Your task to perform on an android device: Open wifi settings Image 0: 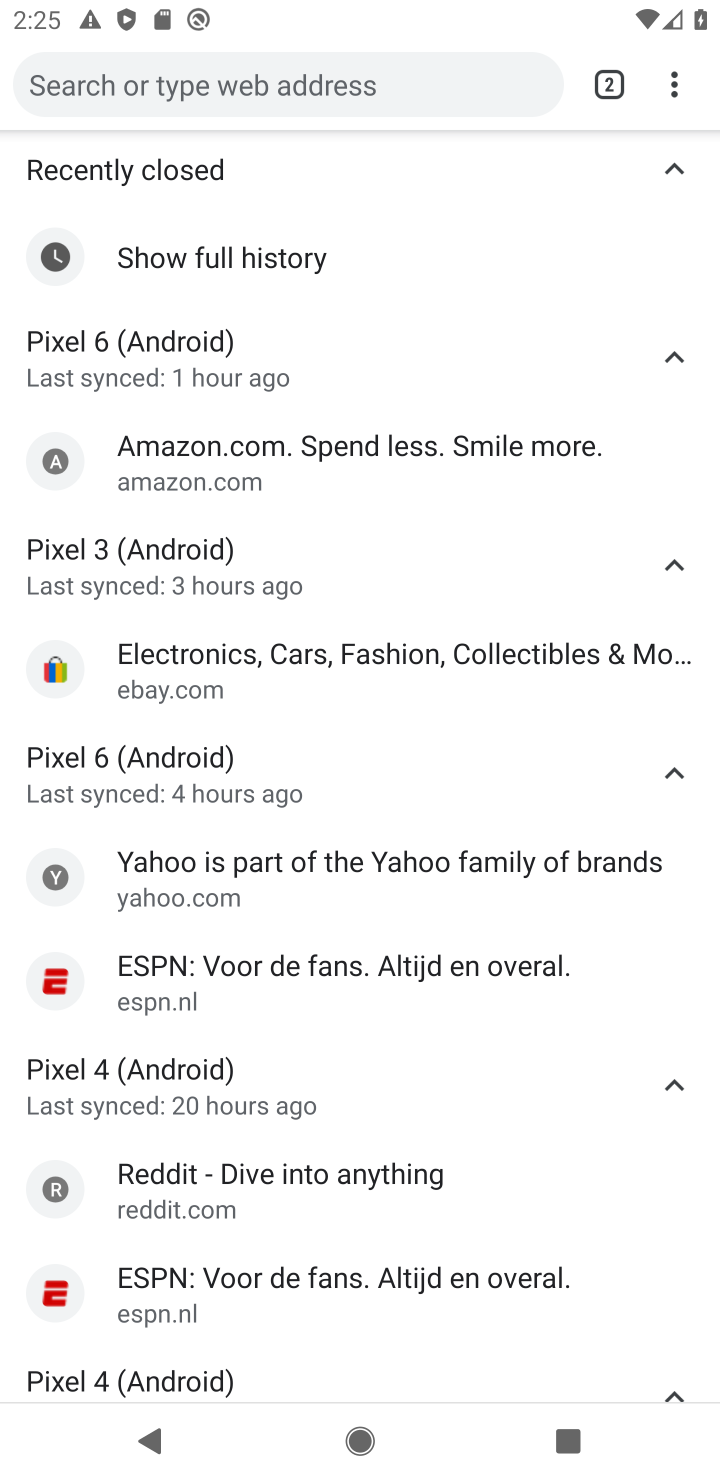
Step 0: press home button
Your task to perform on an android device: Open wifi settings Image 1: 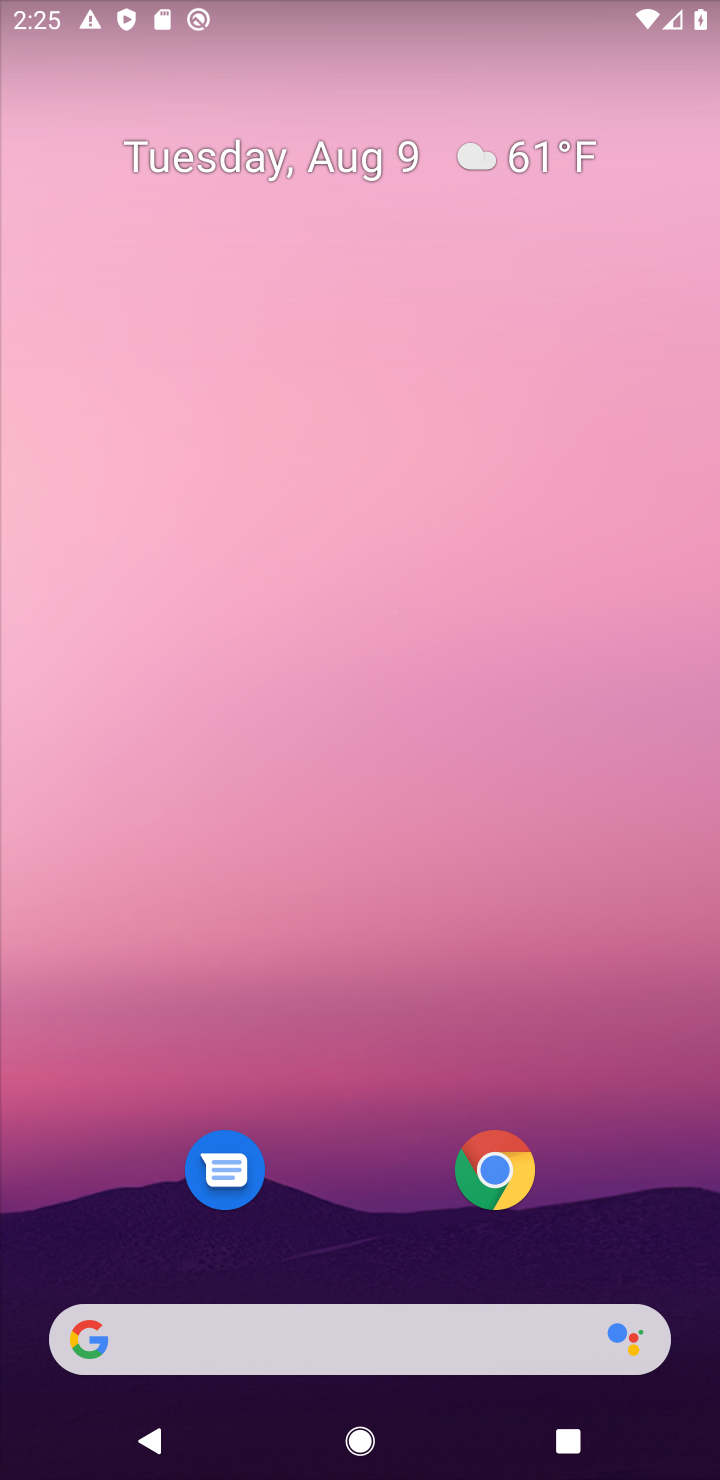
Step 1: drag from (352, 631) to (177, 1)
Your task to perform on an android device: Open wifi settings Image 2: 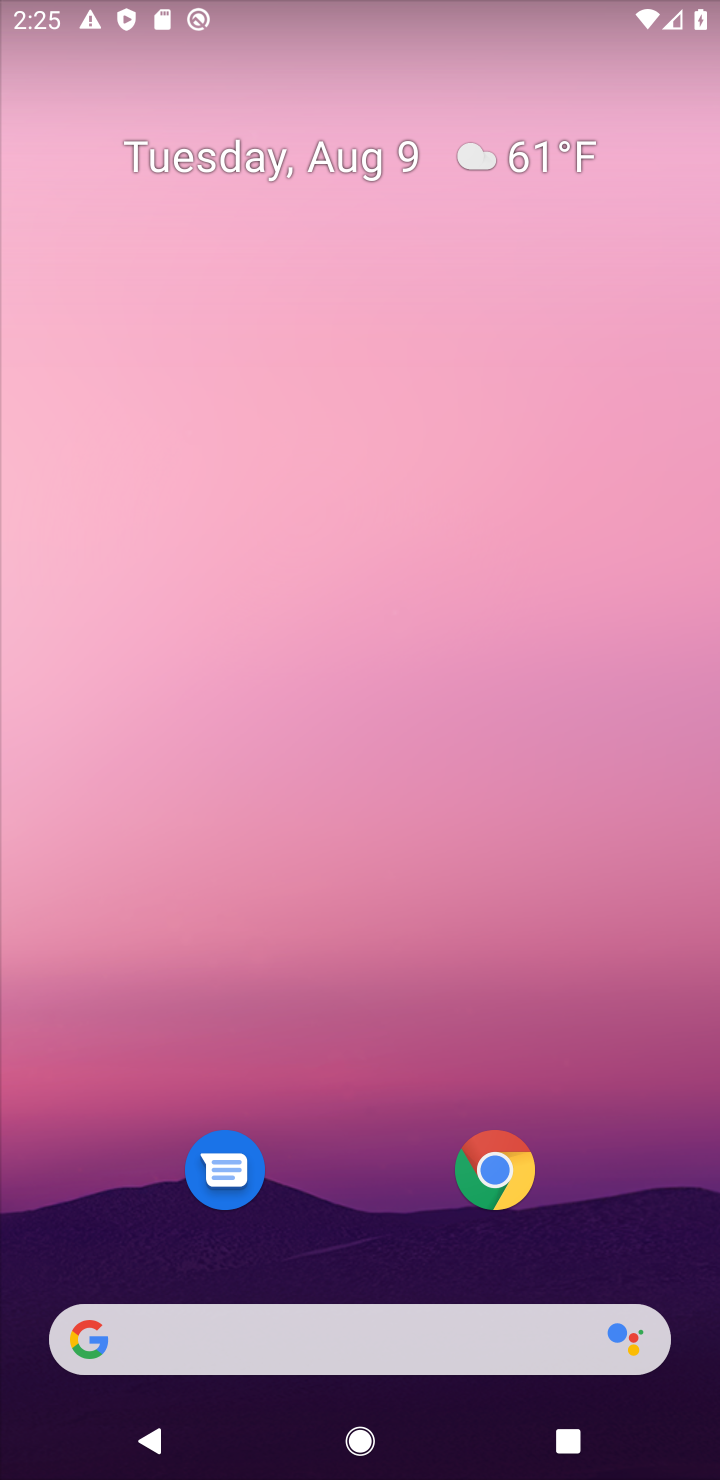
Step 2: drag from (294, 1155) to (451, 17)
Your task to perform on an android device: Open wifi settings Image 3: 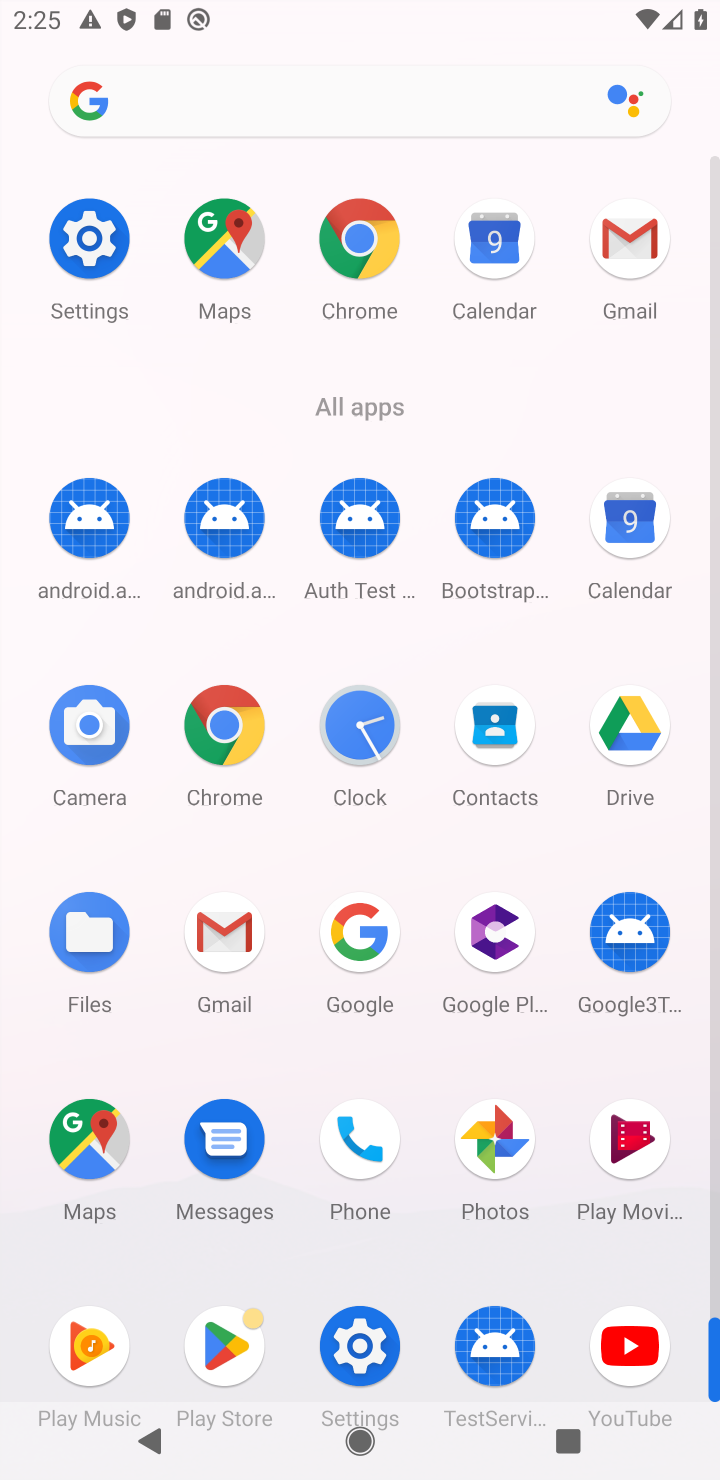
Step 3: click (71, 258)
Your task to perform on an android device: Open wifi settings Image 4: 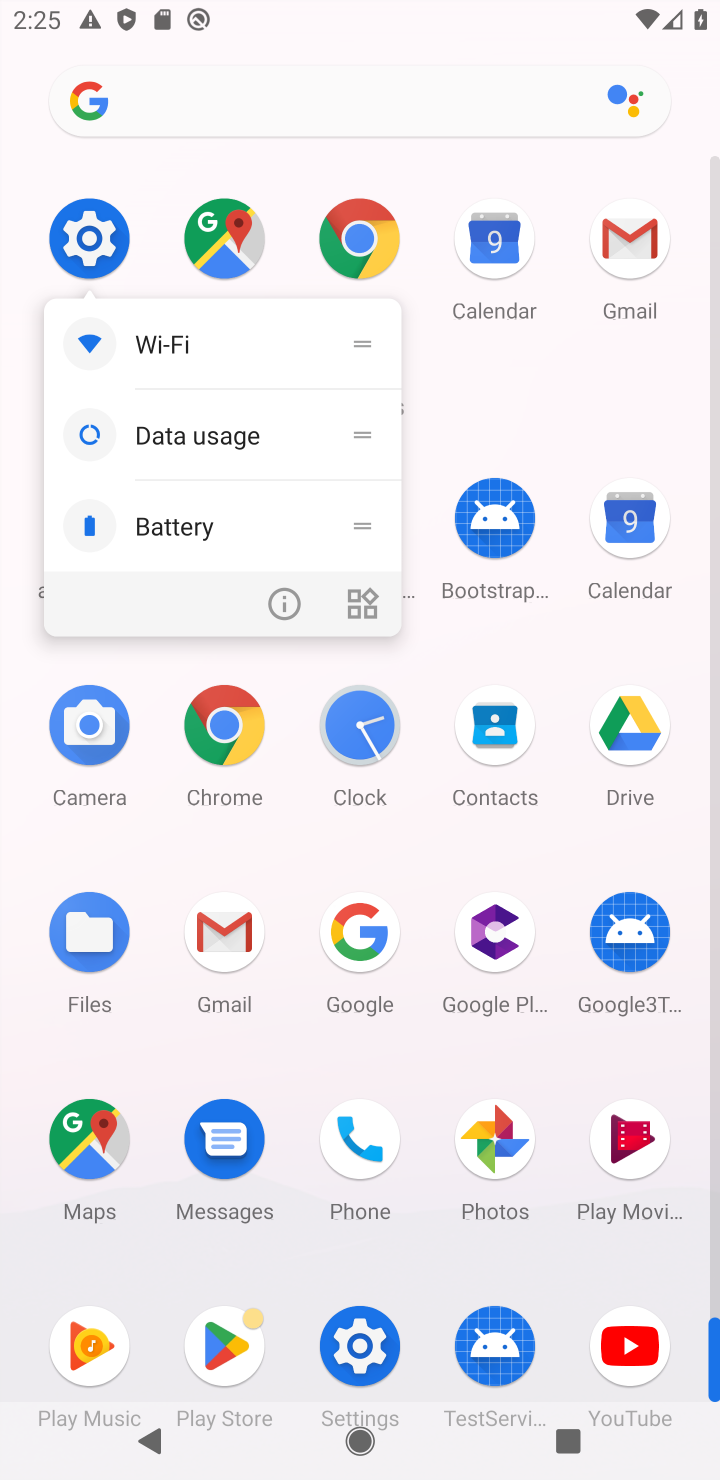
Step 4: click (74, 260)
Your task to perform on an android device: Open wifi settings Image 5: 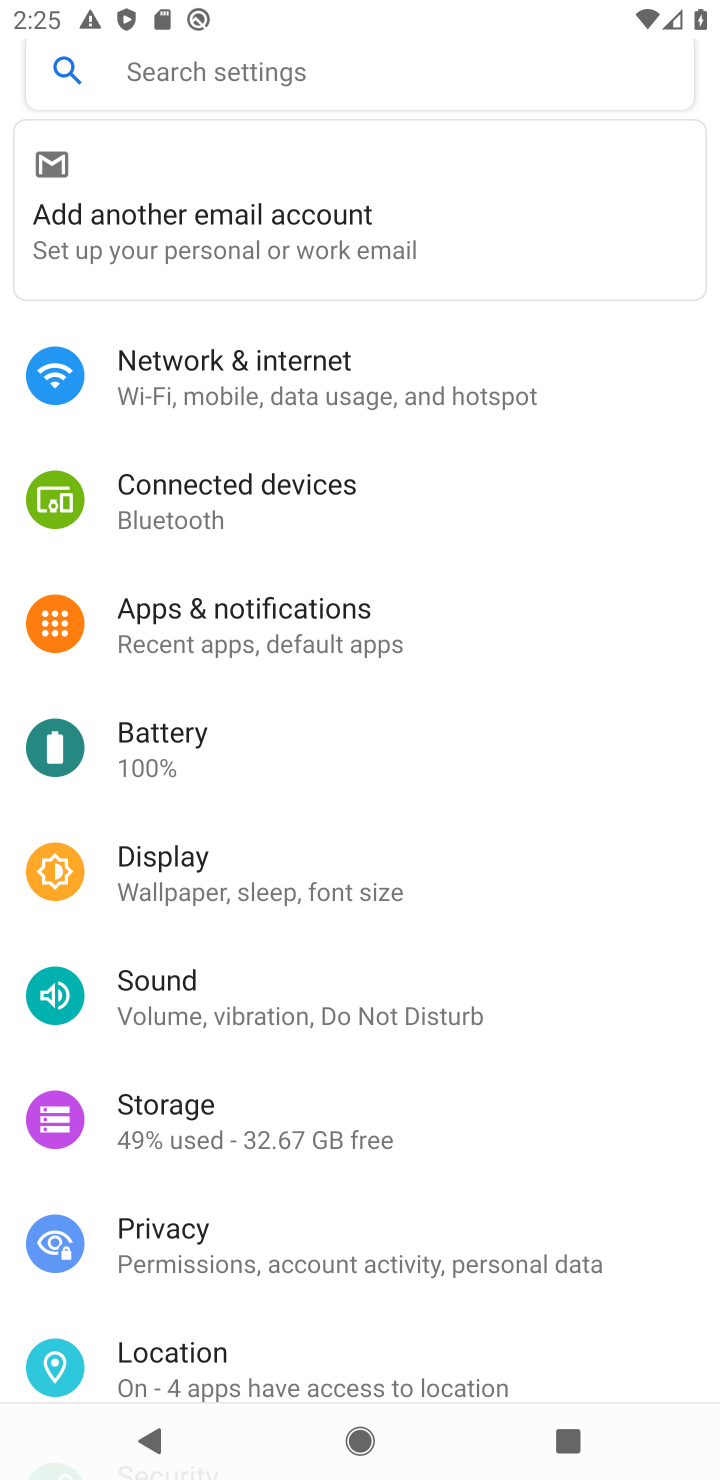
Step 5: click (292, 389)
Your task to perform on an android device: Open wifi settings Image 6: 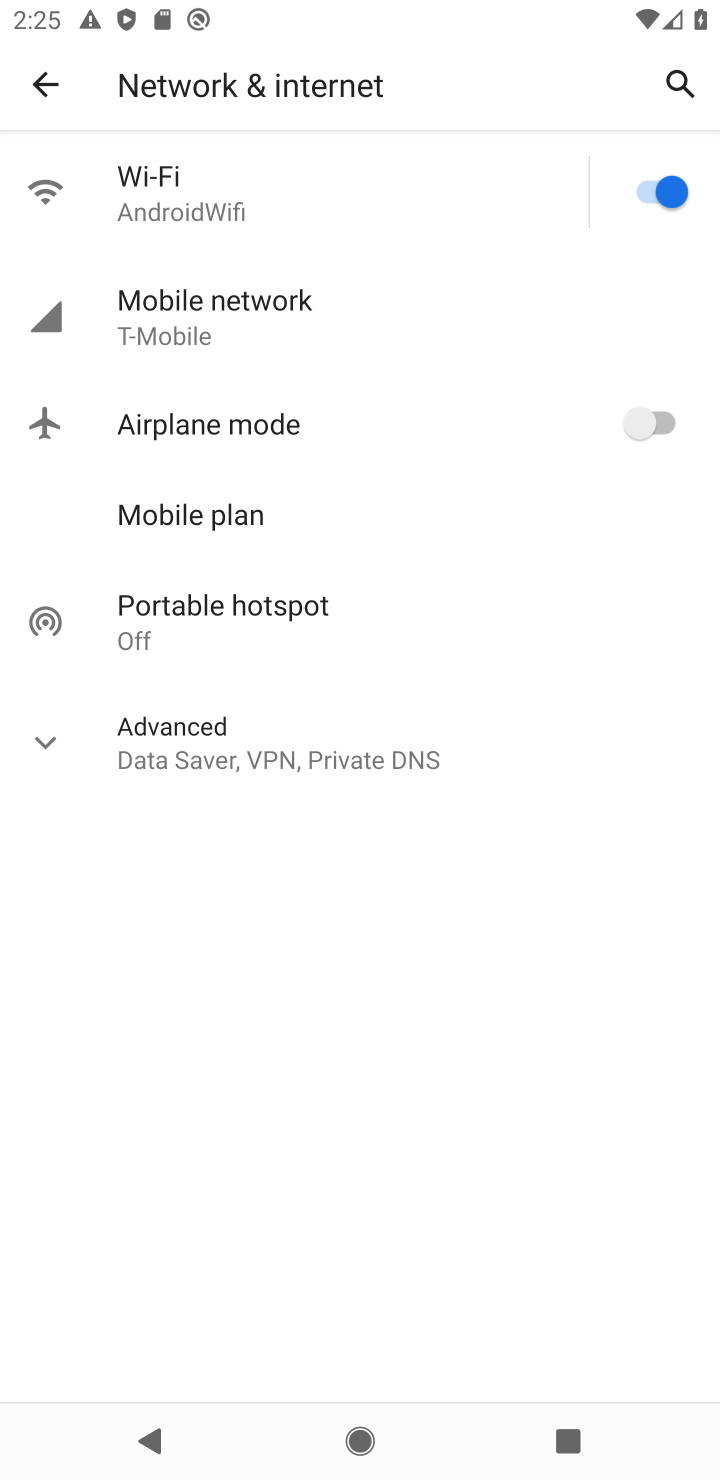
Step 6: click (82, 201)
Your task to perform on an android device: Open wifi settings Image 7: 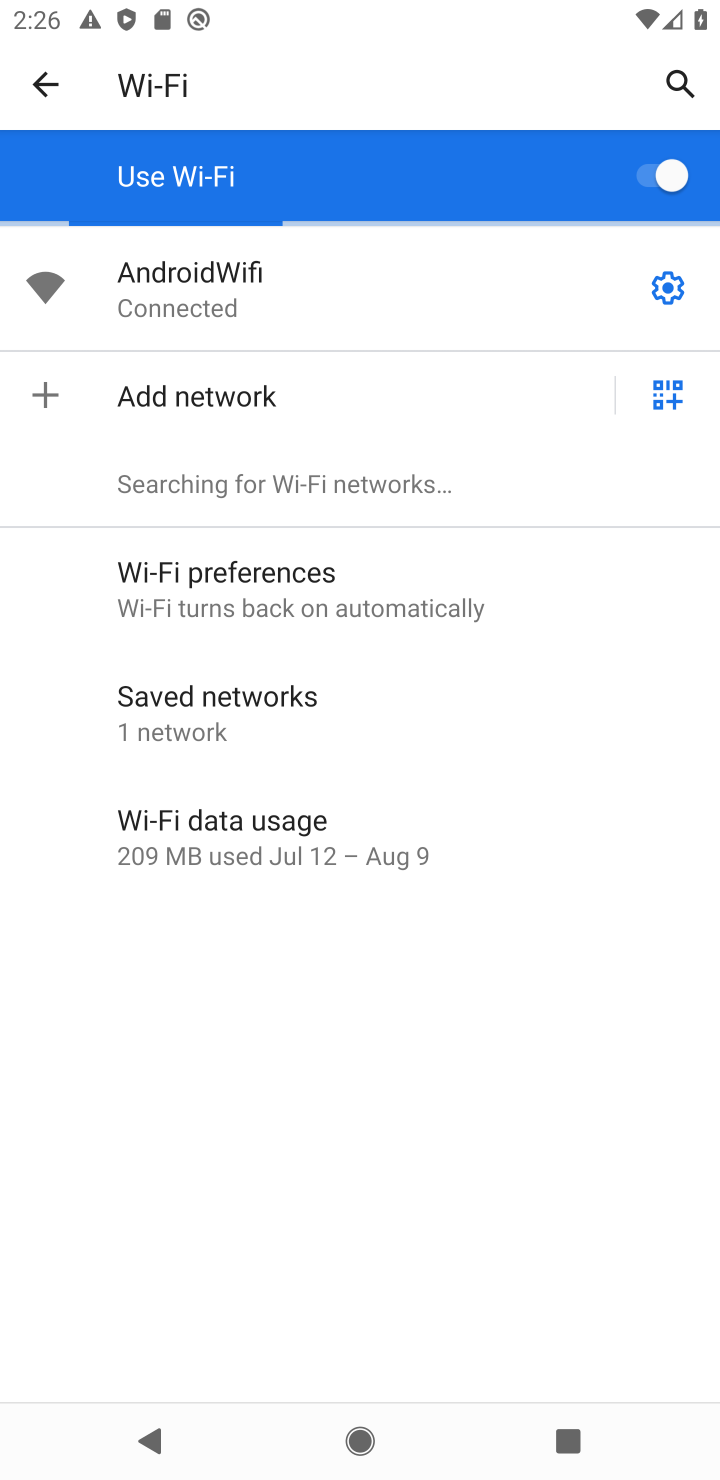
Step 7: task complete